Your task to perform on an android device: turn off wifi Image 0: 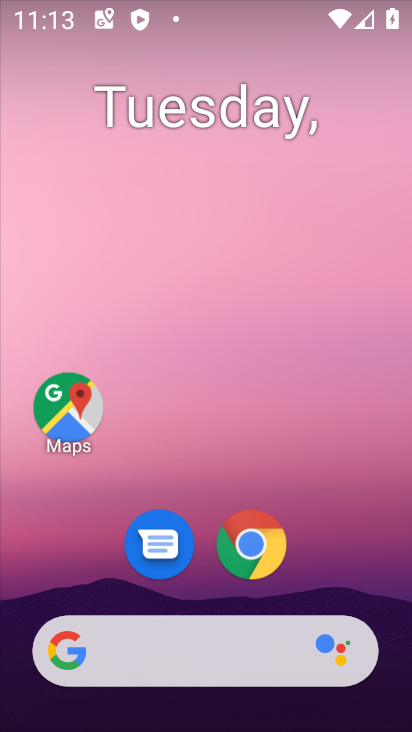
Step 0: drag from (196, 1) to (184, 462)
Your task to perform on an android device: turn off wifi Image 1: 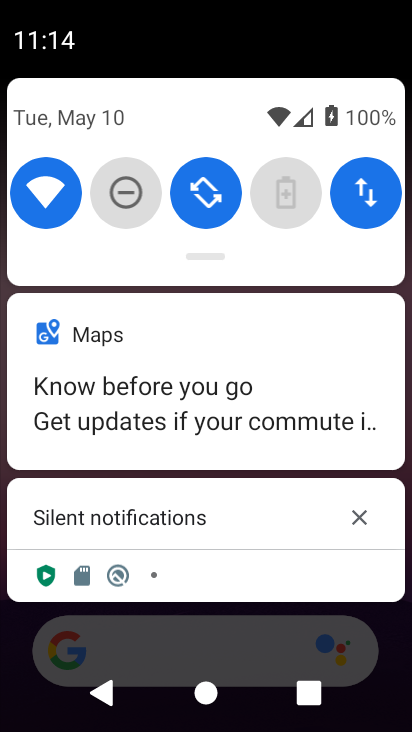
Step 1: click (51, 186)
Your task to perform on an android device: turn off wifi Image 2: 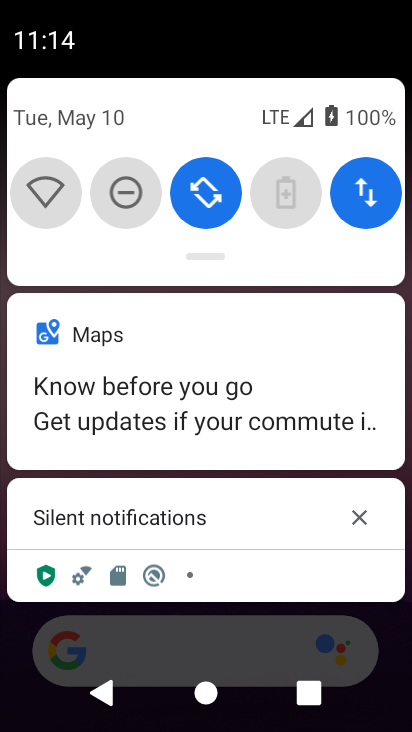
Step 2: task complete